Your task to perform on an android device: See recent photos Image 0: 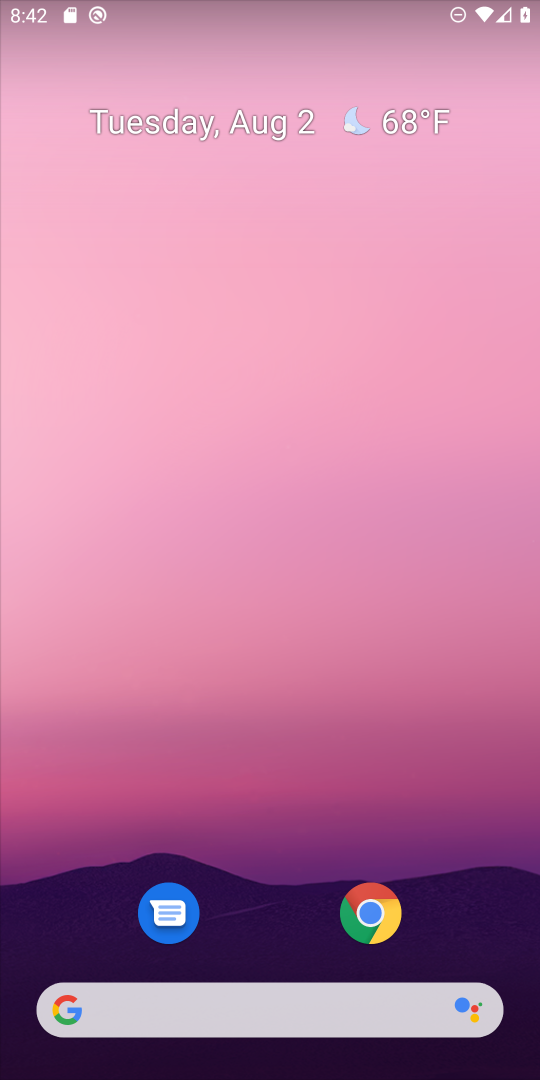
Step 0: drag from (238, 799) to (348, 94)
Your task to perform on an android device: See recent photos Image 1: 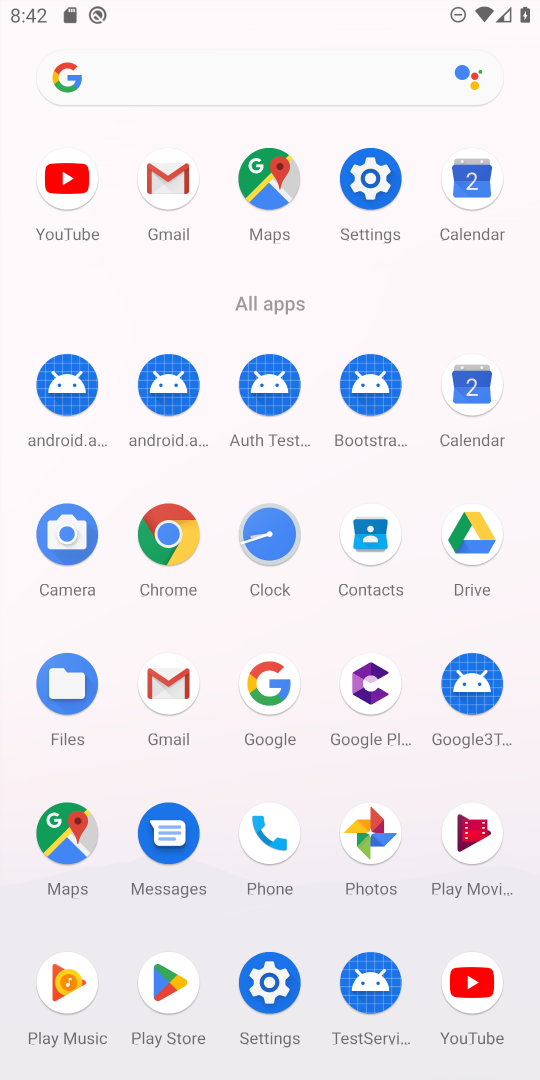
Step 1: click (370, 841)
Your task to perform on an android device: See recent photos Image 2: 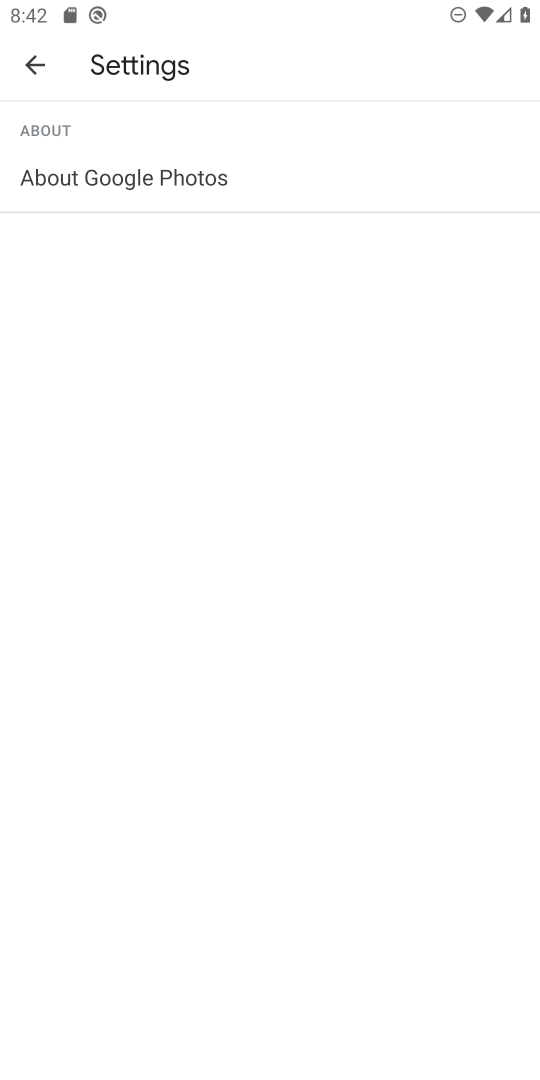
Step 2: click (36, 73)
Your task to perform on an android device: See recent photos Image 3: 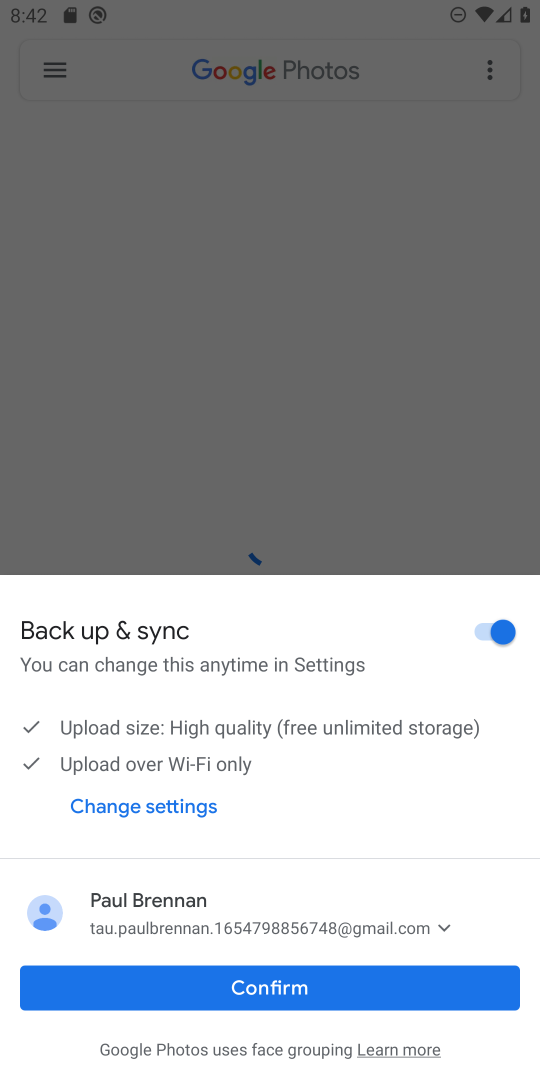
Step 3: click (284, 977)
Your task to perform on an android device: See recent photos Image 4: 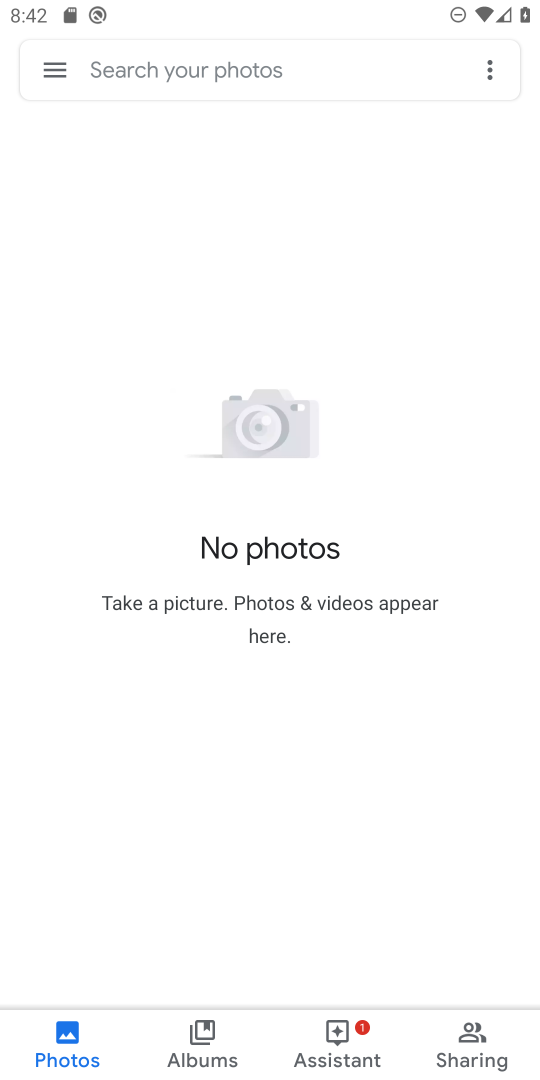
Step 4: task complete